Your task to perform on an android device: Open Google Chrome and click the shortcut for Amazon.com Image 0: 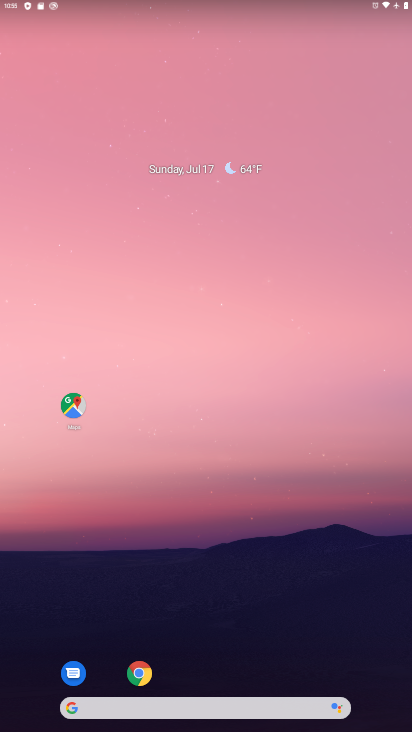
Step 0: click (138, 679)
Your task to perform on an android device: Open Google Chrome and click the shortcut for Amazon.com Image 1: 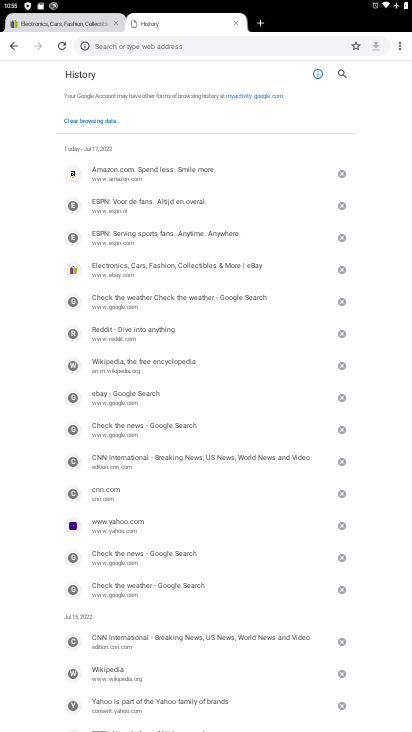
Step 1: click (257, 29)
Your task to perform on an android device: Open Google Chrome and click the shortcut for Amazon.com Image 2: 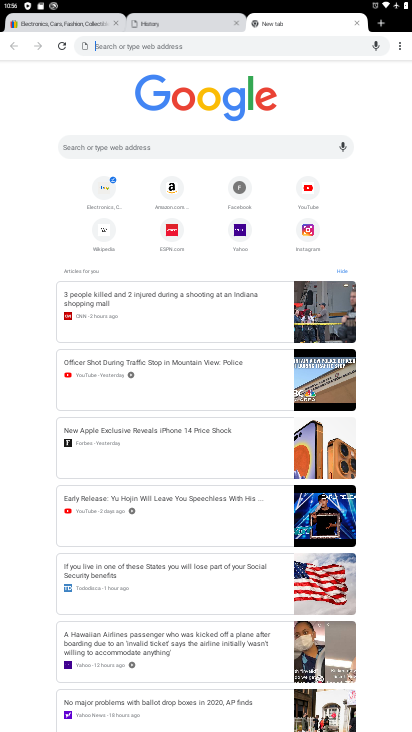
Step 2: click (170, 189)
Your task to perform on an android device: Open Google Chrome and click the shortcut for Amazon.com Image 3: 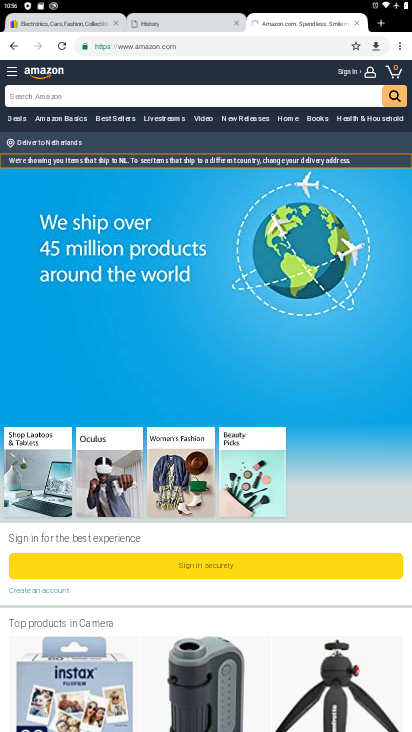
Step 3: task complete